Your task to perform on an android device: Open wifi settings Image 0: 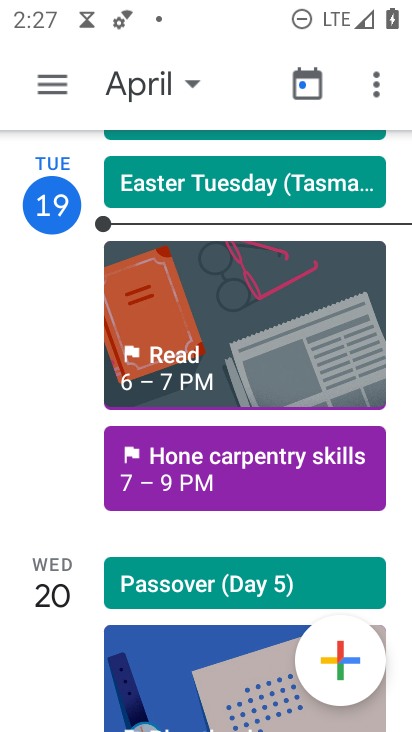
Step 0: press home button
Your task to perform on an android device: Open wifi settings Image 1: 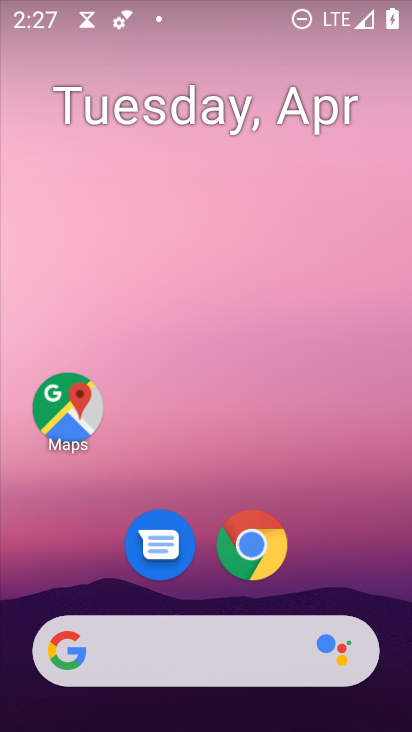
Step 1: drag from (372, 561) to (333, 242)
Your task to perform on an android device: Open wifi settings Image 2: 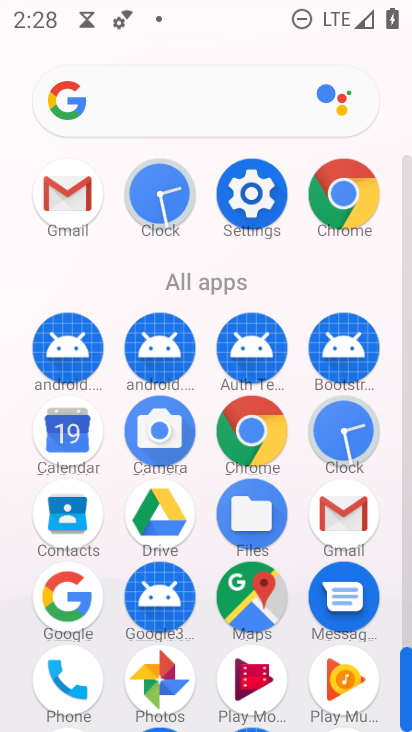
Step 2: click (262, 208)
Your task to perform on an android device: Open wifi settings Image 3: 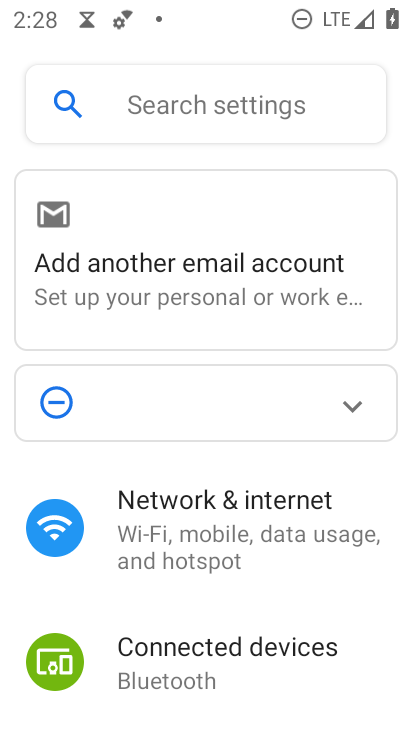
Step 3: click (319, 541)
Your task to perform on an android device: Open wifi settings Image 4: 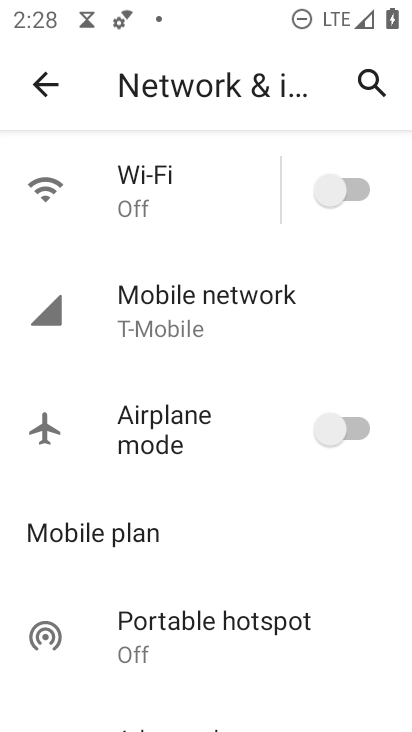
Step 4: click (165, 180)
Your task to perform on an android device: Open wifi settings Image 5: 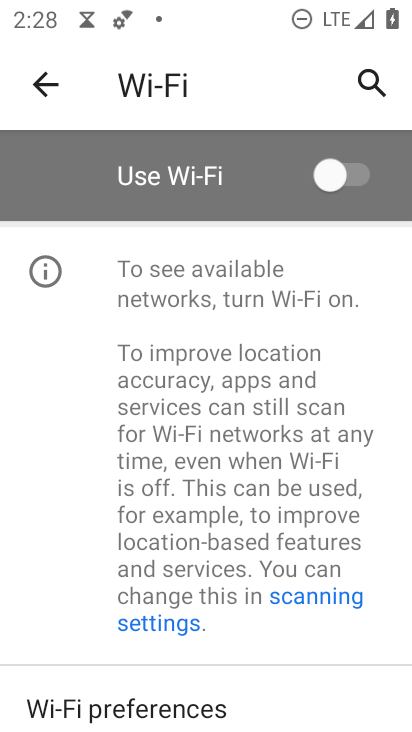
Step 5: task complete